Your task to perform on an android device: Go to Maps Image 0: 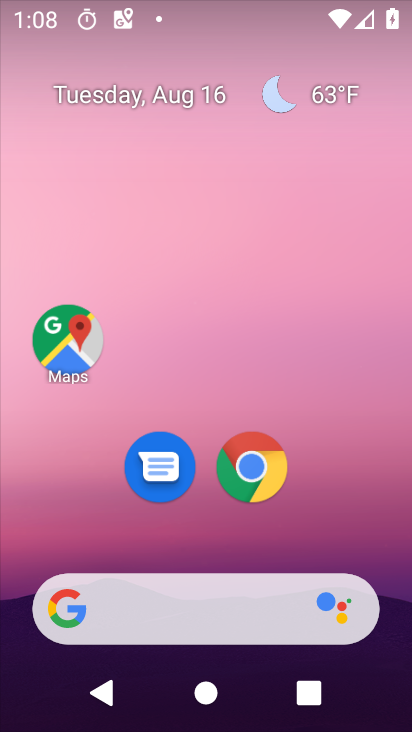
Step 0: press home button
Your task to perform on an android device: Go to Maps Image 1: 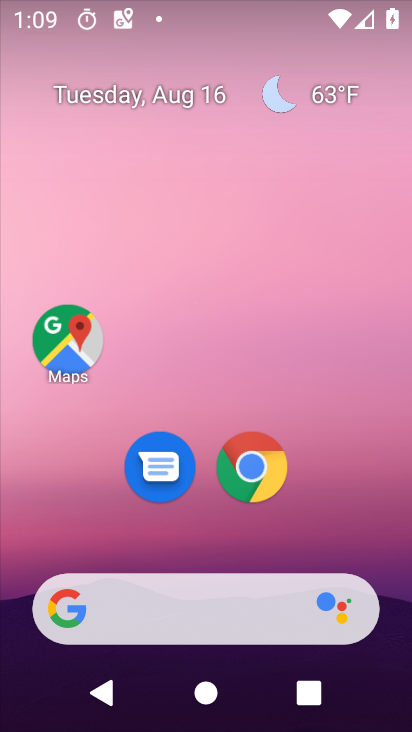
Step 1: drag from (369, 547) to (351, 220)
Your task to perform on an android device: Go to Maps Image 2: 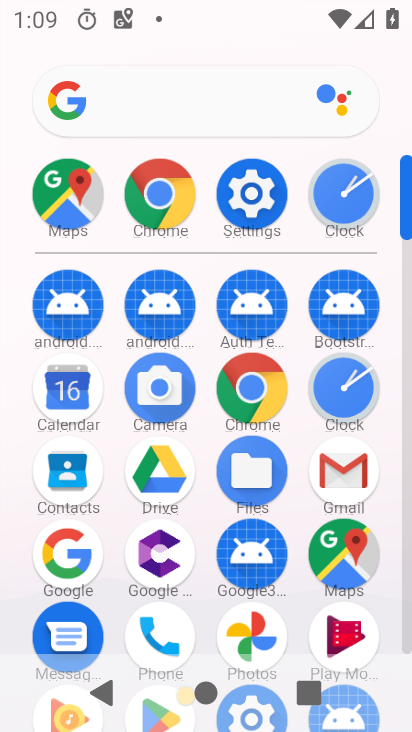
Step 2: click (336, 557)
Your task to perform on an android device: Go to Maps Image 3: 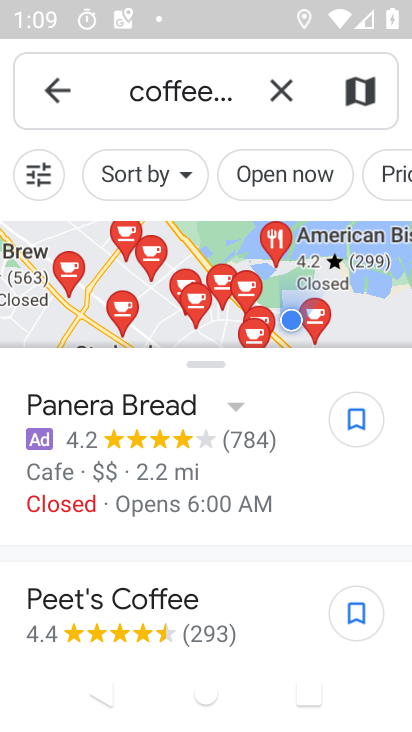
Step 3: task complete